Your task to perform on an android device: add a contact Image 0: 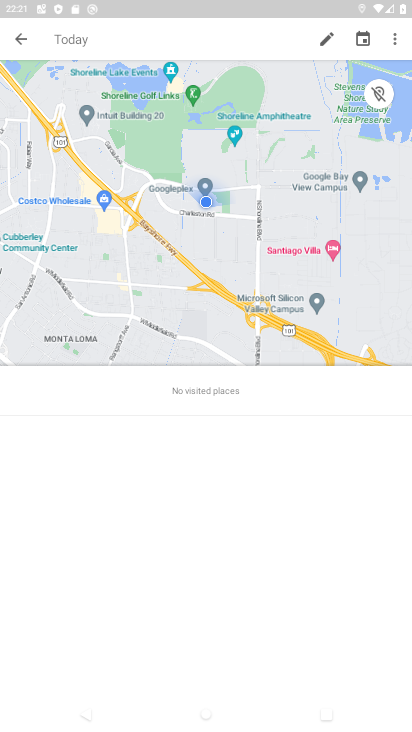
Step 0: press home button
Your task to perform on an android device: add a contact Image 1: 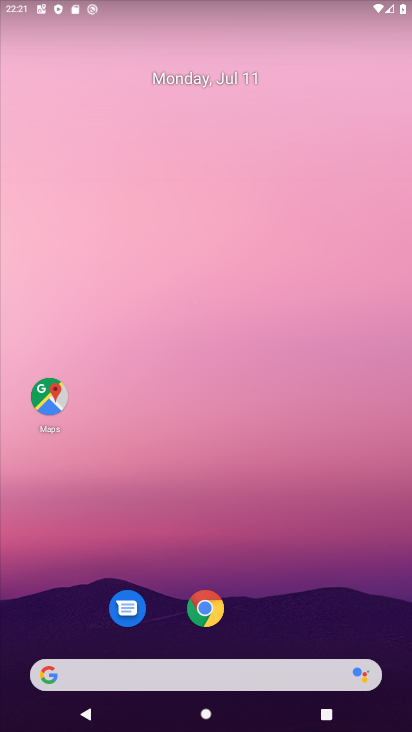
Step 1: drag from (141, 493) to (395, 17)
Your task to perform on an android device: add a contact Image 2: 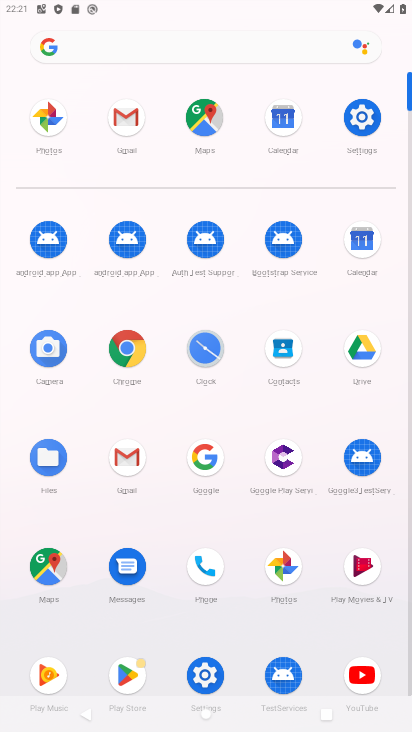
Step 2: click (270, 345)
Your task to perform on an android device: add a contact Image 3: 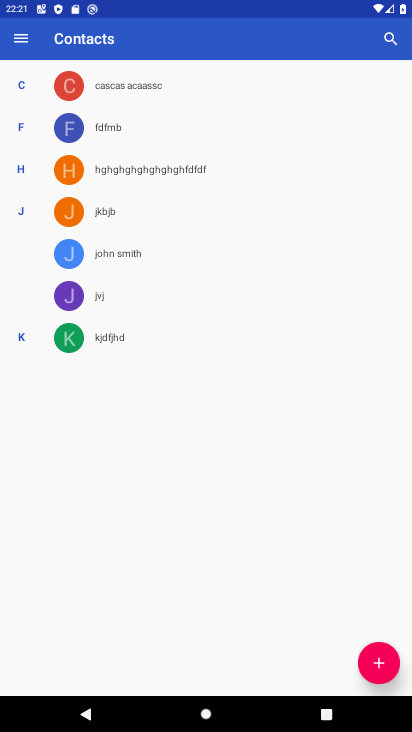
Step 3: click (372, 661)
Your task to perform on an android device: add a contact Image 4: 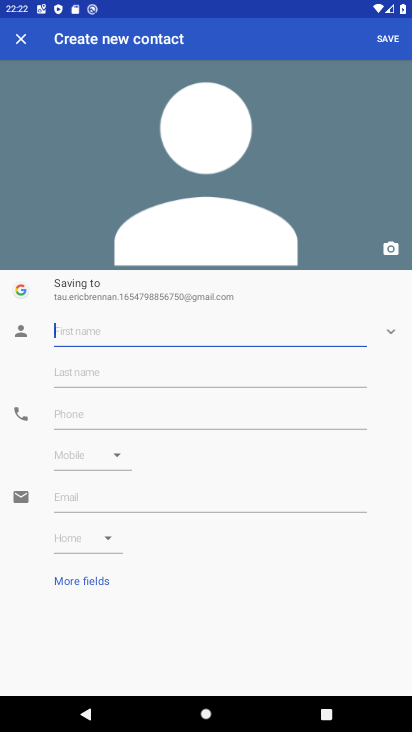
Step 4: type "masoom"
Your task to perform on an android device: add a contact Image 5: 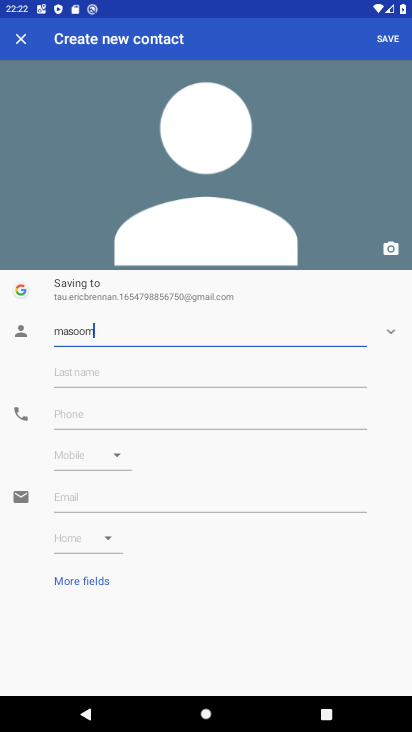
Step 5: type ""
Your task to perform on an android device: add a contact Image 6: 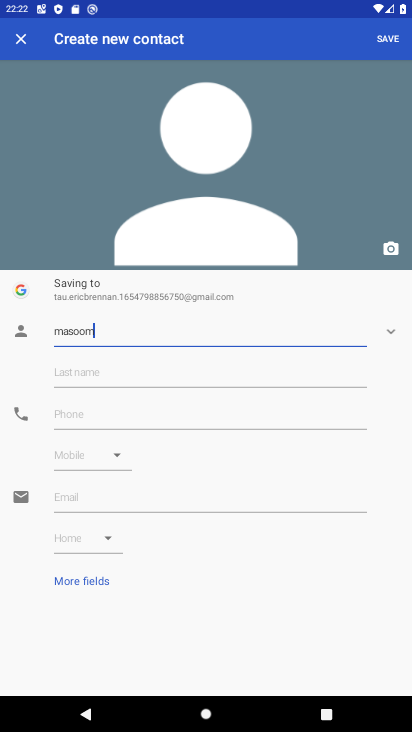
Step 6: click (387, 39)
Your task to perform on an android device: add a contact Image 7: 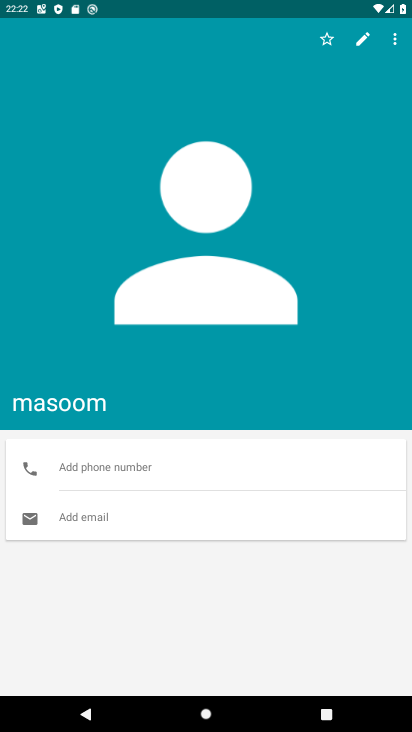
Step 7: task complete